Your task to perform on an android device: check google app version Image 0: 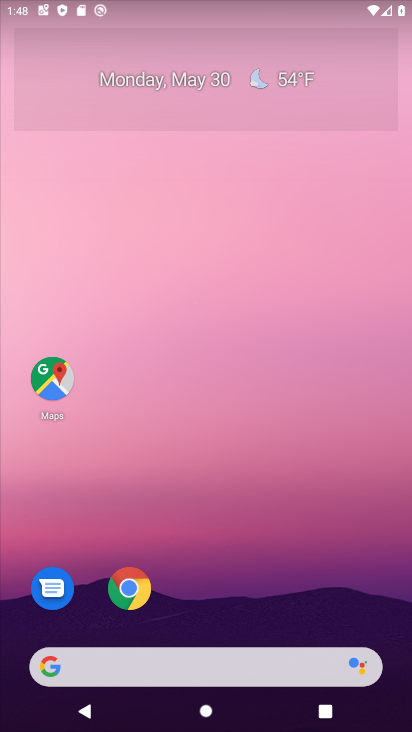
Step 0: drag from (236, 565) to (258, 25)
Your task to perform on an android device: check google app version Image 1: 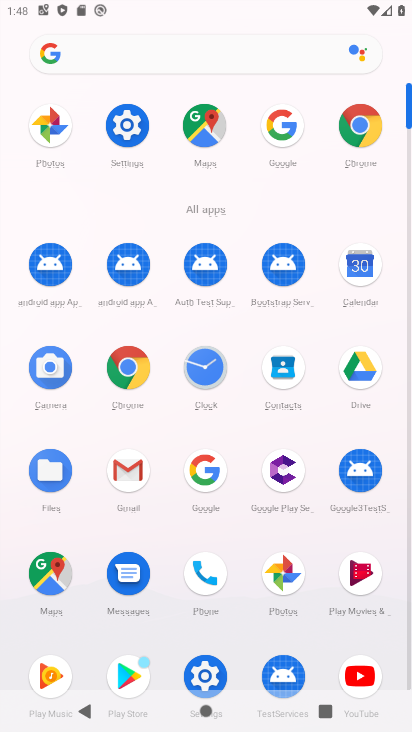
Step 1: click (199, 468)
Your task to perform on an android device: check google app version Image 2: 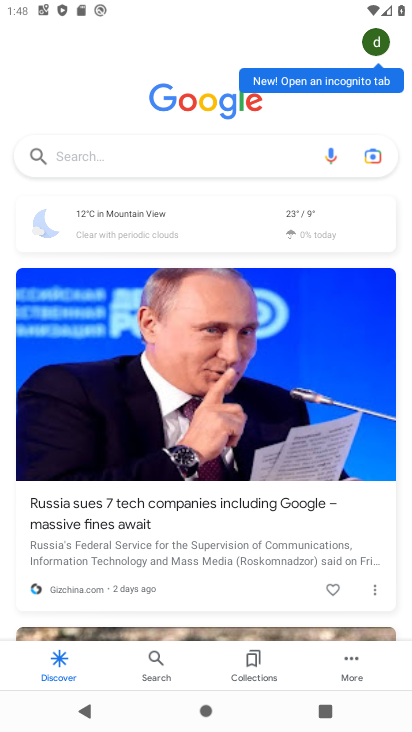
Step 2: click (357, 662)
Your task to perform on an android device: check google app version Image 3: 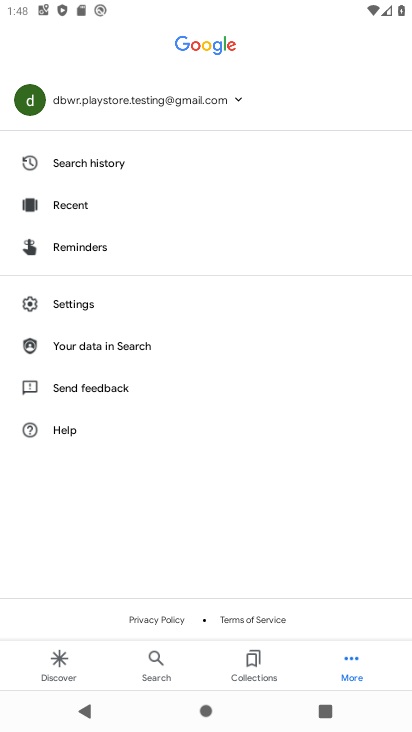
Step 3: click (83, 307)
Your task to perform on an android device: check google app version Image 4: 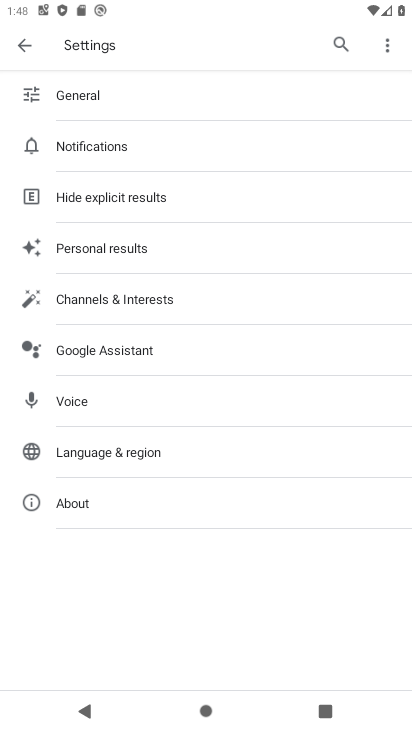
Step 4: click (92, 89)
Your task to perform on an android device: check google app version Image 5: 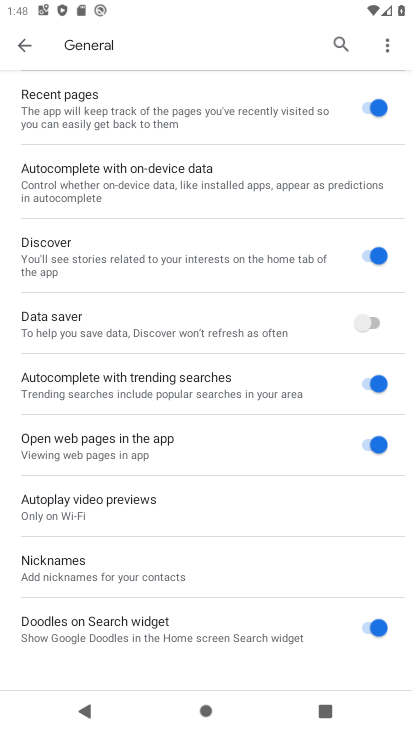
Step 5: drag from (166, 545) to (156, 106)
Your task to perform on an android device: check google app version Image 6: 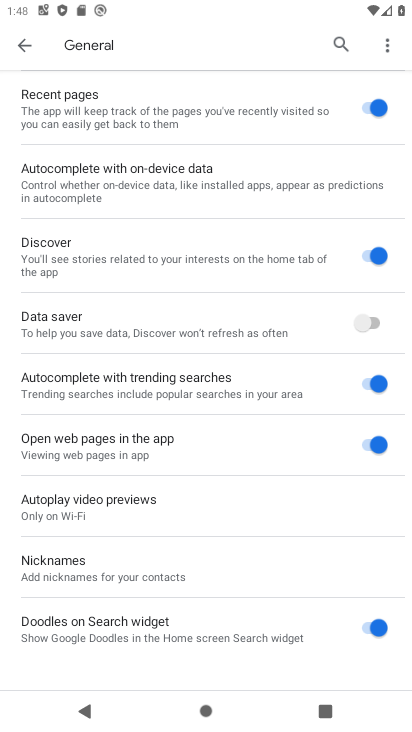
Step 6: press back button
Your task to perform on an android device: check google app version Image 7: 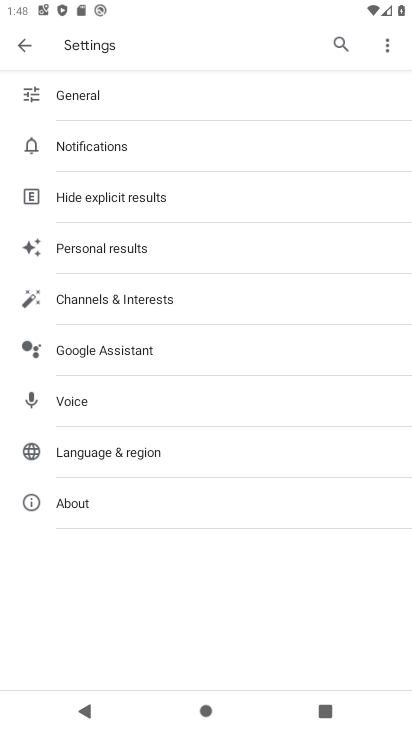
Step 7: click (76, 499)
Your task to perform on an android device: check google app version Image 8: 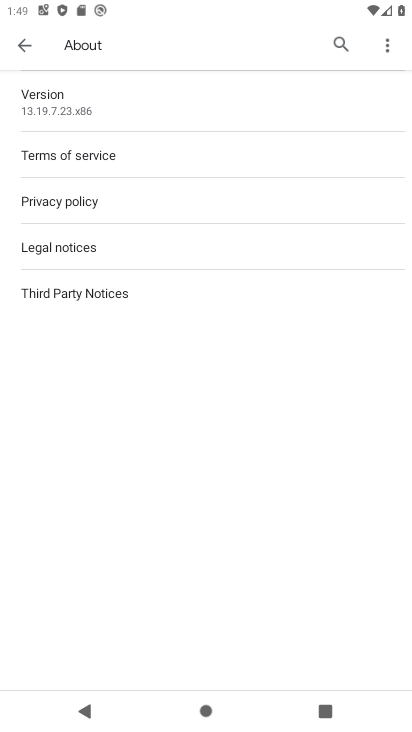
Step 8: task complete